Your task to perform on an android device: Open the phone app and click the voicemail tab. Image 0: 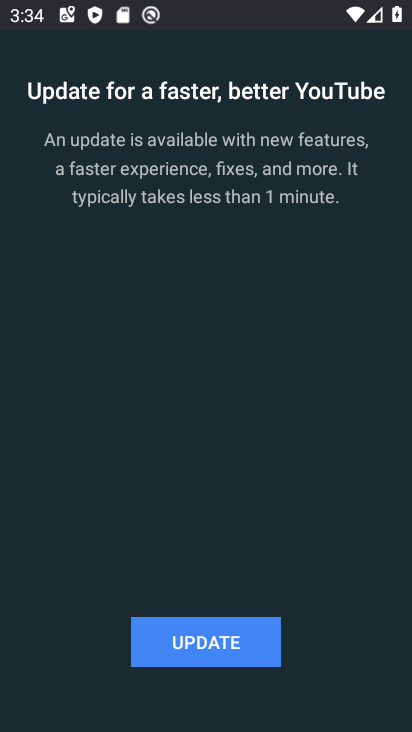
Step 0: press back button
Your task to perform on an android device: Open the phone app and click the voicemail tab. Image 1: 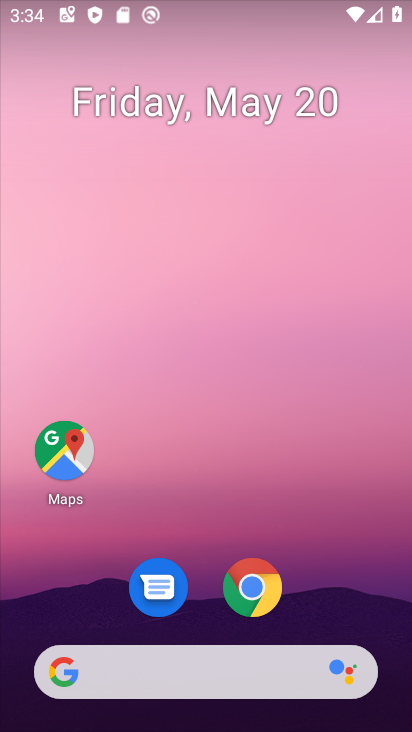
Step 1: drag from (320, 537) to (283, 2)
Your task to perform on an android device: Open the phone app and click the voicemail tab. Image 2: 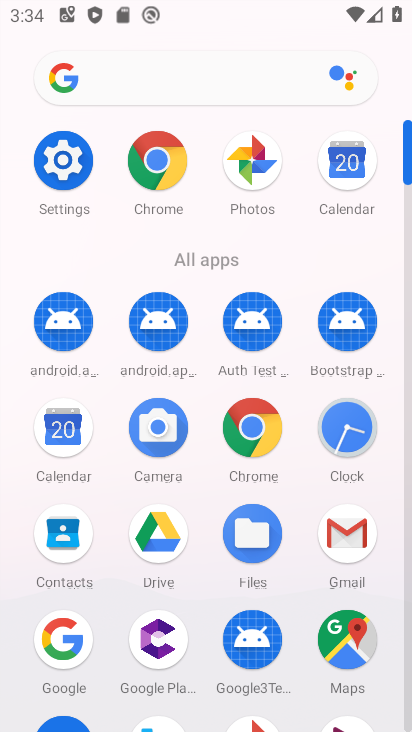
Step 2: drag from (7, 594) to (7, 224)
Your task to perform on an android device: Open the phone app and click the voicemail tab. Image 3: 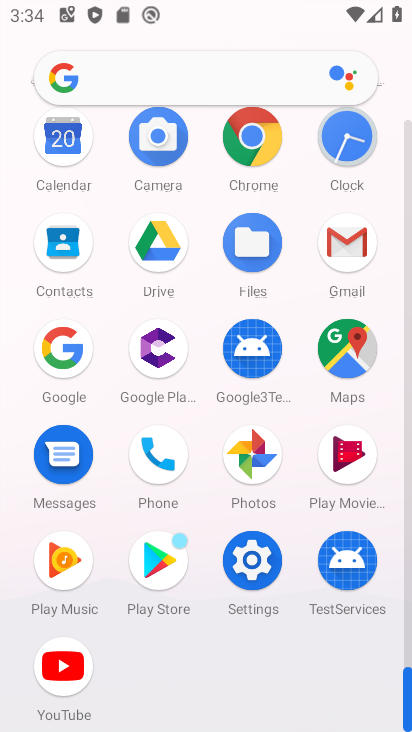
Step 3: click (157, 445)
Your task to perform on an android device: Open the phone app and click the voicemail tab. Image 4: 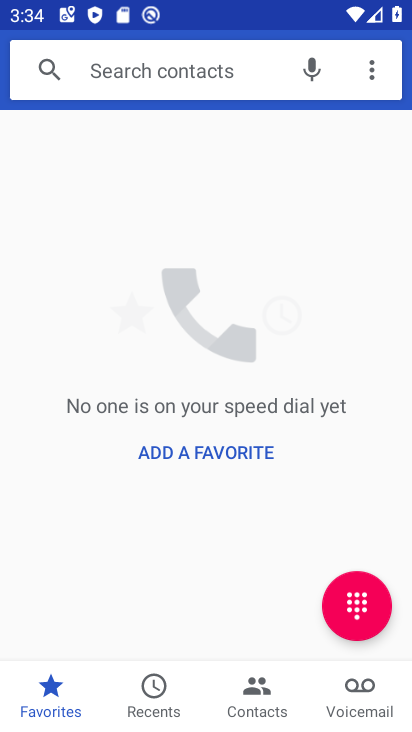
Step 4: click (336, 693)
Your task to perform on an android device: Open the phone app and click the voicemail tab. Image 5: 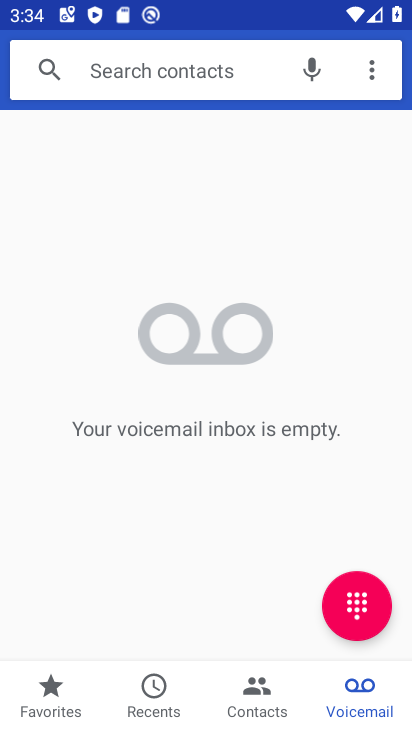
Step 5: task complete